Your task to perform on an android device: Open Google Chrome and open the bookmarks view Image 0: 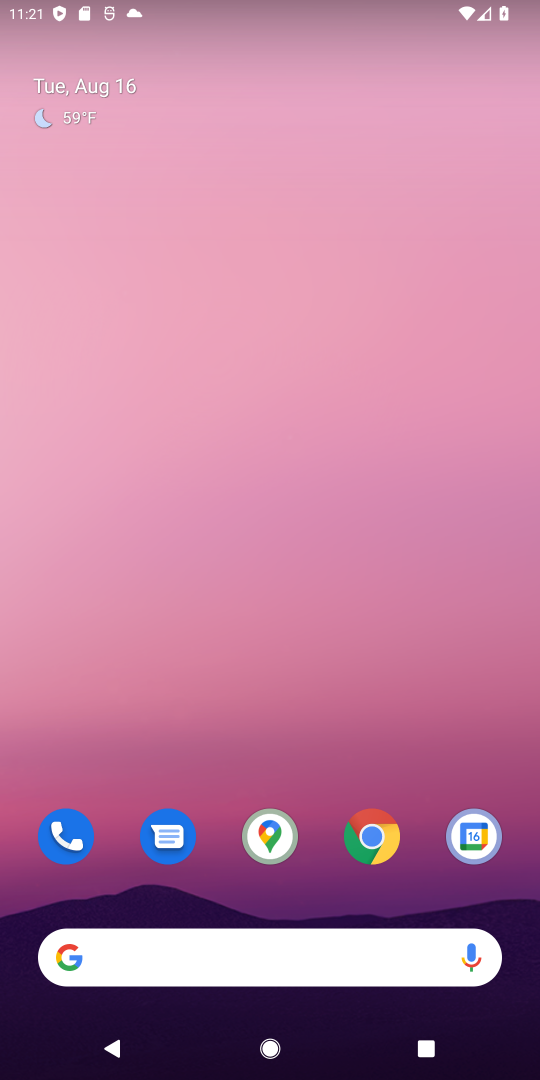
Step 0: click (369, 838)
Your task to perform on an android device: Open Google Chrome and open the bookmarks view Image 1: 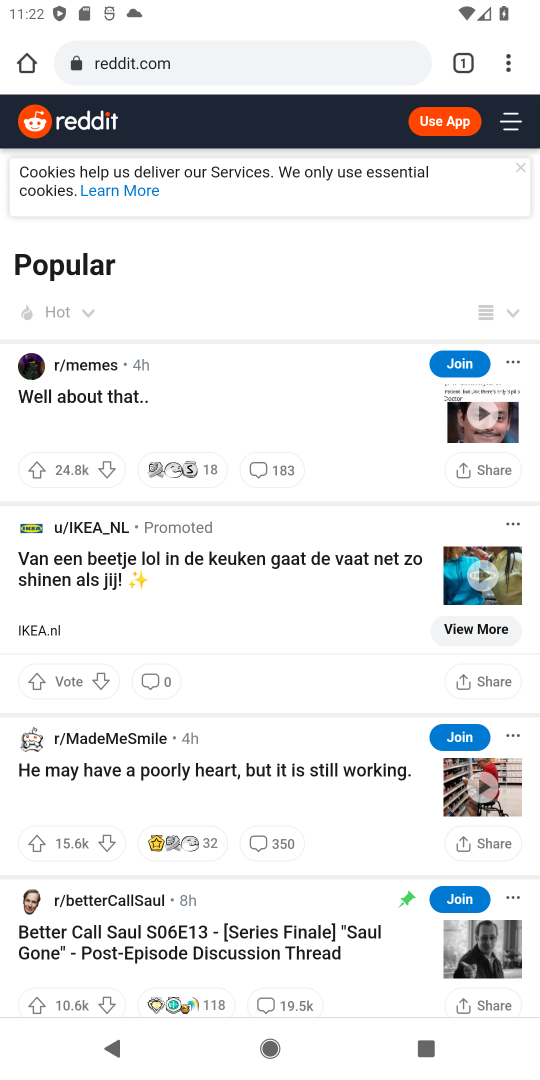
Step 1: click (520, 72)
Your task to perform on an android device: Open Google Chrome and open the bookmarks view Image 2: 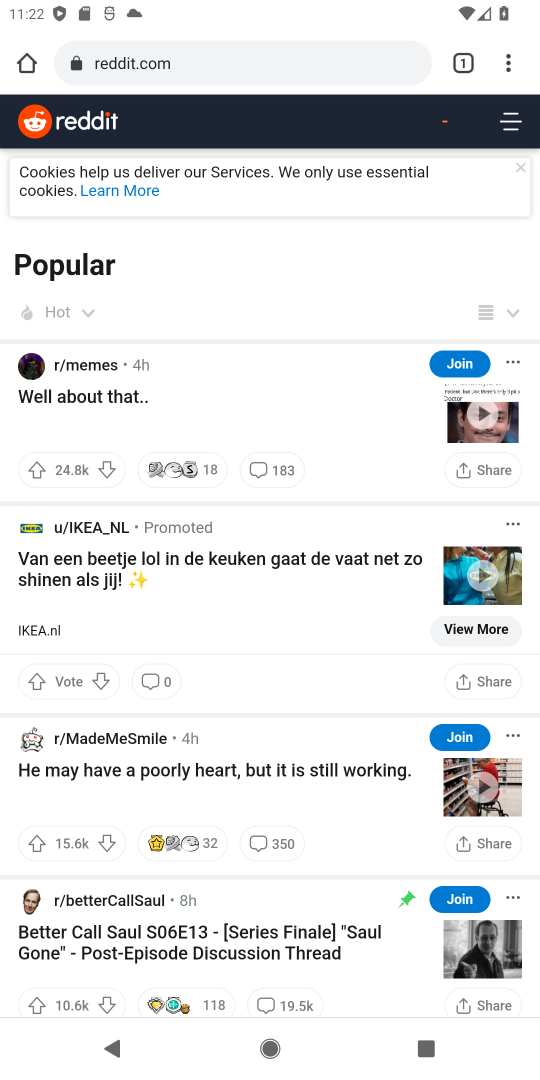
Step 2: task complete